Your task to perform on an android device: Open Amazon Image 0: 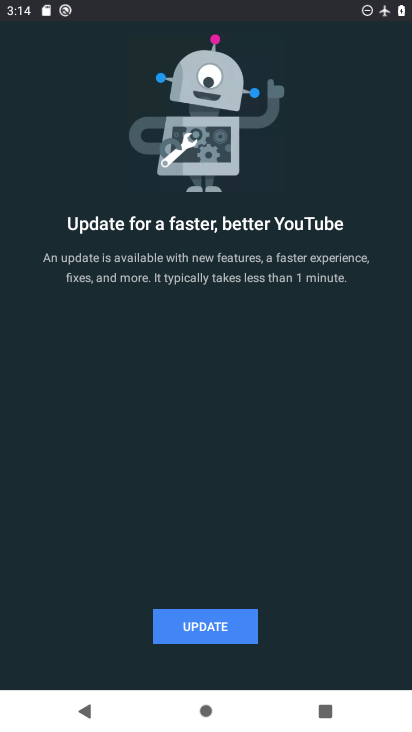
Step 0: press back button
Your task to perform on an android device: Open Amazon Image 1: 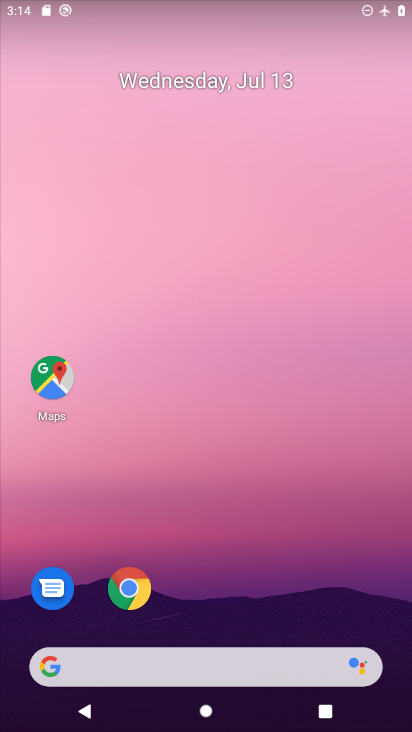
Step 1: drag from (187, 630) to (124, 22)
Your task to perform on an android device: Open Amazon Image 2: 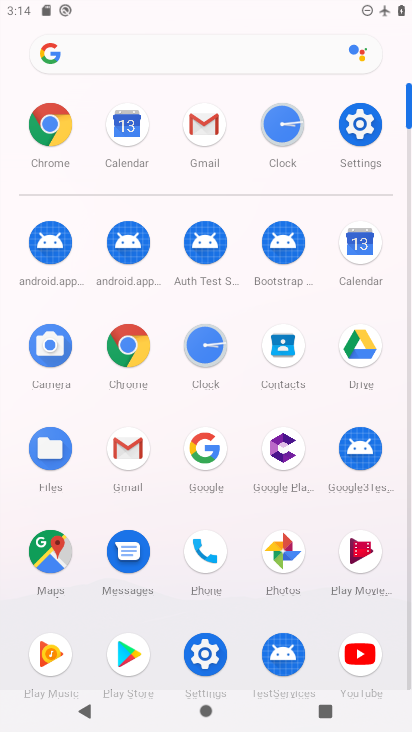
Step 2: click (54, 130)
Your task to perform on an android device: Open Amazon Image 3: 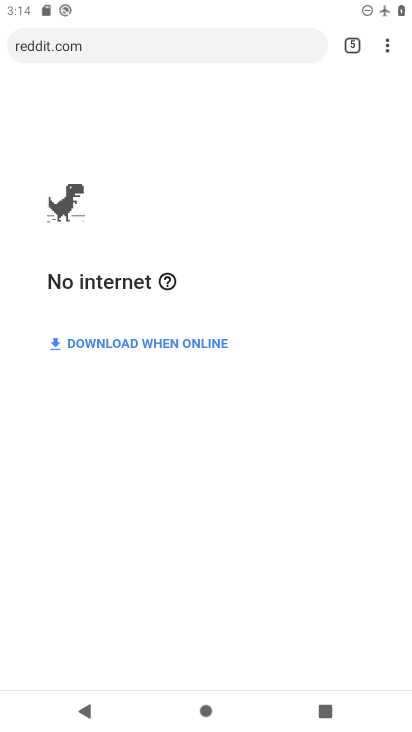
Step 3: click (338, 37)
Your task to perform on an android device: Open Amazon Image 4: 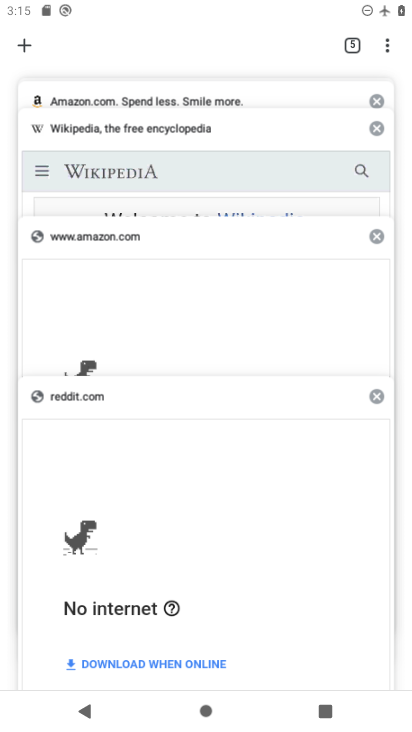
Step 4: click (70, 95)
Your task to perform on an android device: Open Amazon Image 5: 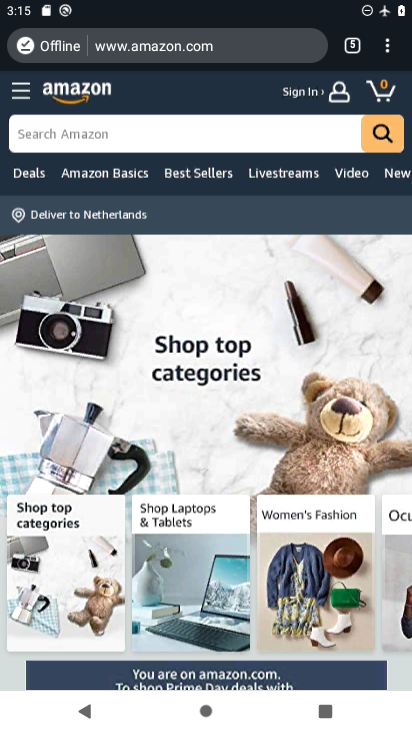
Step 5: task complete